Your task to perform on an android device: find snoozed emails in the gmail app Image 0: 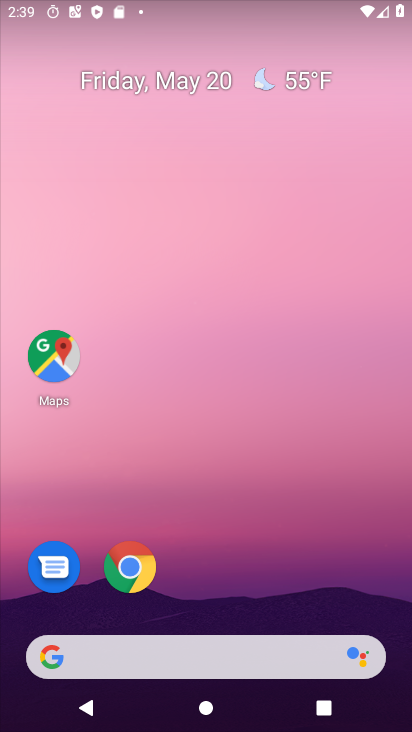
Step 0: drag from (176, 623) to (244, 192)
Your task to perform on an android device: find snoozed emails in the gmail app Image 1: 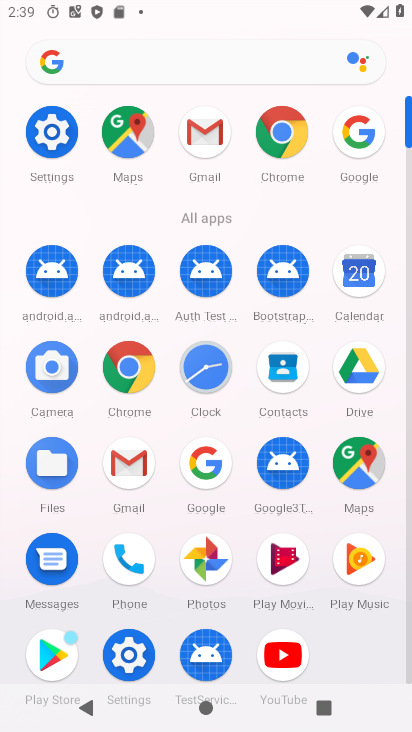
Step 1: click (115, 481)
Your task to perform on an android device: find snoozed emails in the gmail app Image 2: 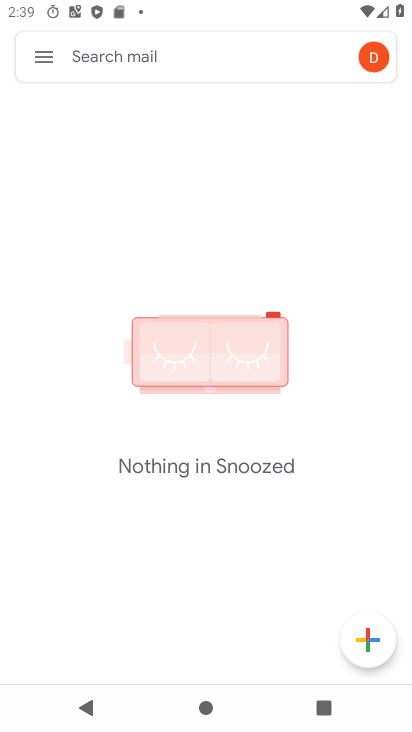
Step 2: click (45, 52)
Your task to perform on an android device: find snoozed emails in the gmail app Image 3: 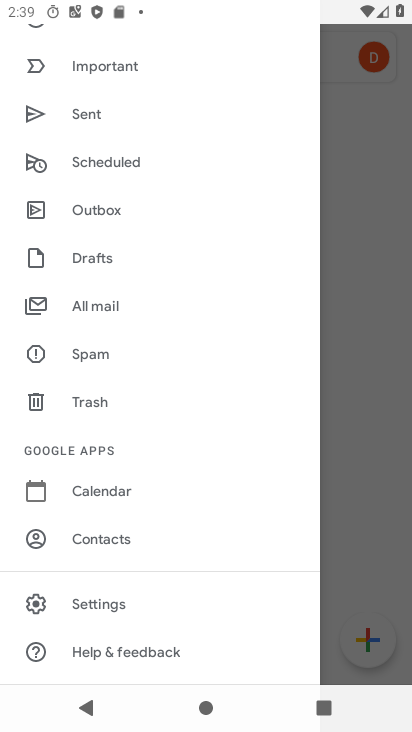
Step 3: drag from (114, 60) to (123, 477)
Your task to perform on an android device: find snoozed emails in the gmail app Image 4: 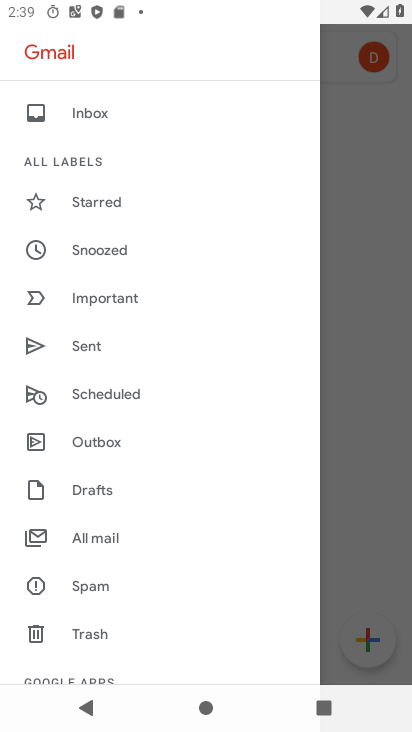
Step 4: click (98, 258)
Your task to perform on an android device: find snoozed emails in the gmail app Image 5: 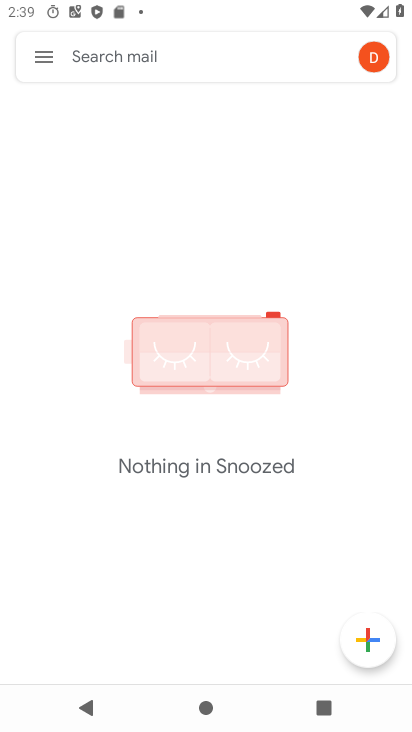
Step 5: task complete